Your task to perform on an android device: delete the emails in spam in the gmail app Image 0: 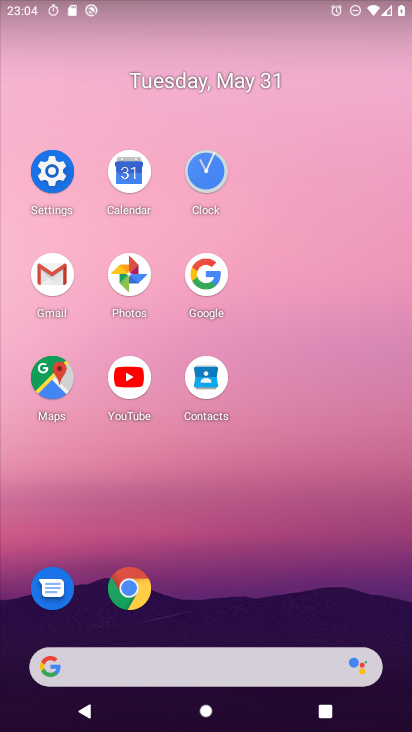
Step 0: click (49, 293)
Your task to perform on an android device: delete the emails in spam in the gmail app Image 1: 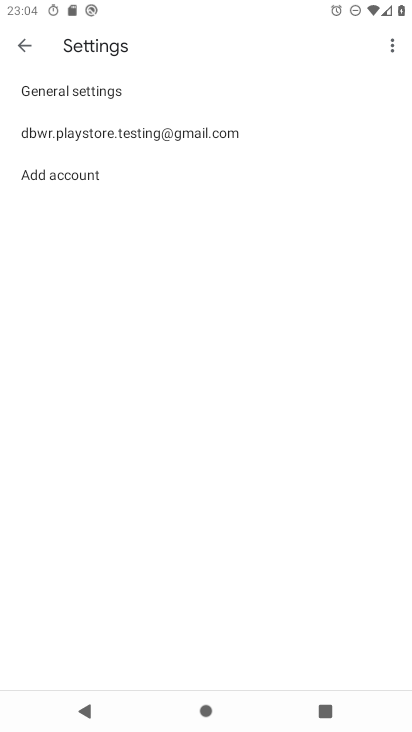
Step 1: click (32, 43)
Your task to perform on an android device: delete the emails in spam in the gmail app Image 2: 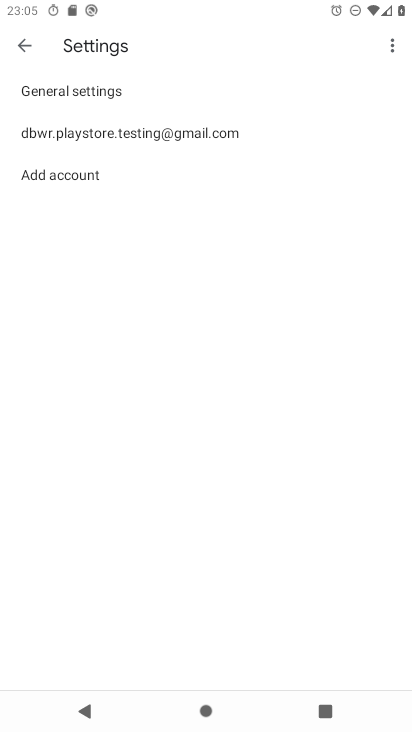
Step 2: click (25, 51)
Your task to perform on an android device: delete the emails in spam in the gmail app Image 3: 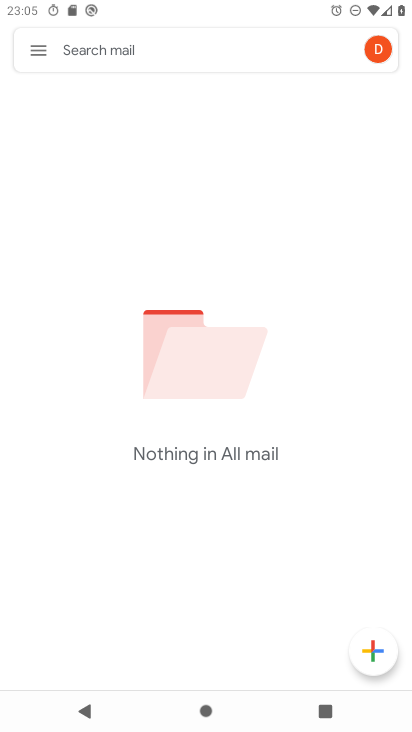
Step 3: click (37, 55)
Your task to perform on an android device: delete the emails in spam in the gmail app Image 4: 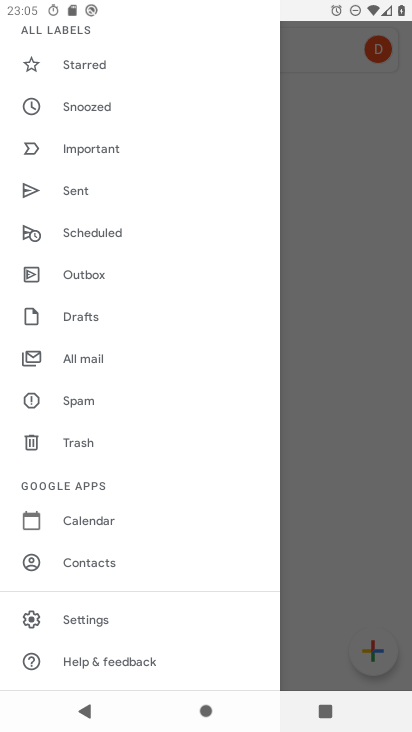
Step 4: click (84, 401)
Your task to perform on an android device: delete the emails in spam in the gmail app Image 5: 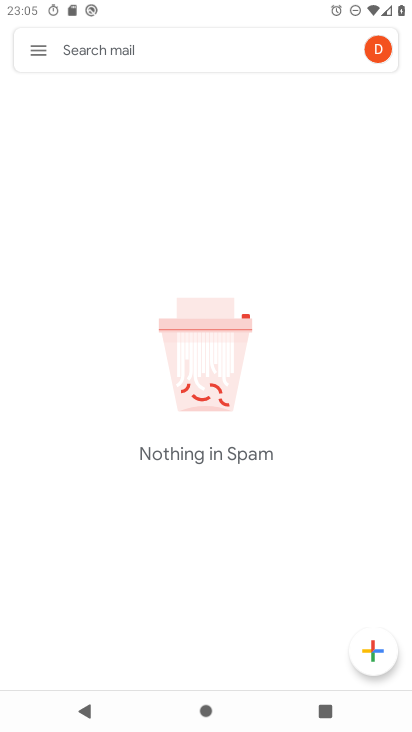
Step 5: task complete